Your task to perform on an android device: toggle translation in the chrome app Image 0: 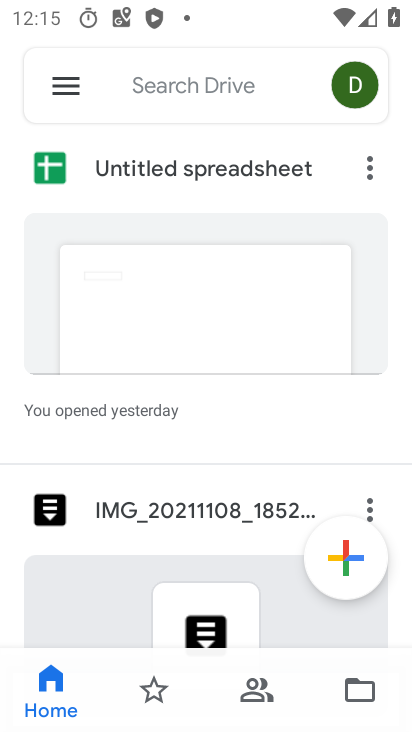
Step 0: press home button
Your task to perform on an android device: toggle translation in the chrome app Image 1: 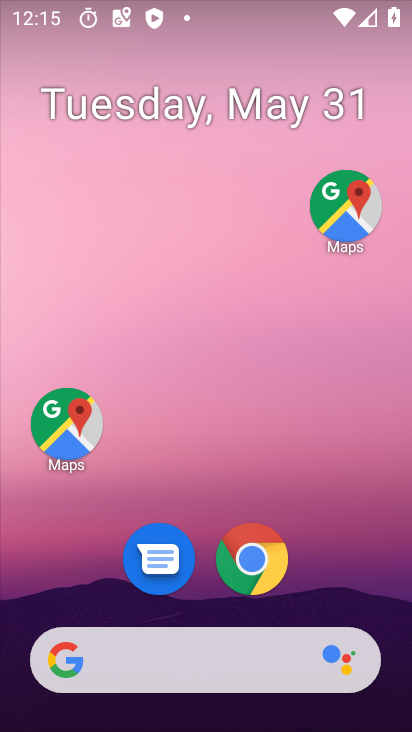
Step 1: click (251, 559)
Your task to perform on an android device: toggle translation in the chrome app Image 2: 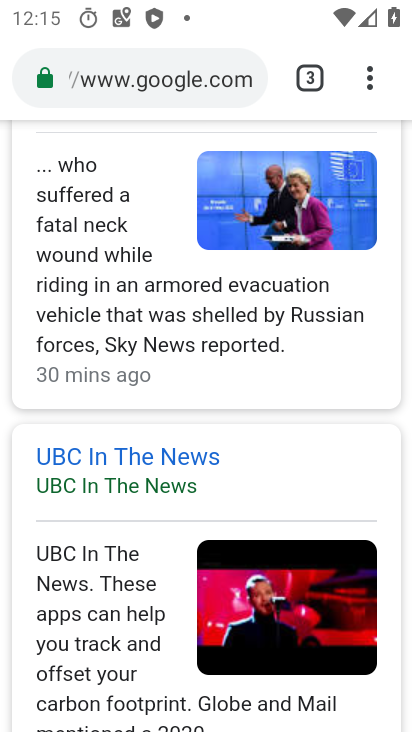
Step 2: drag from (376, 68) to (106, 627)
Your task to perform on an android device: toggle translation in the chrome app Image 3: 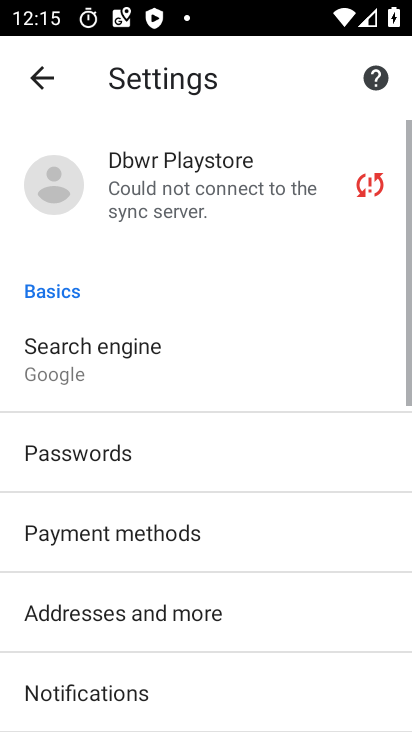
Step 3: drag from (106, 610) to (229, 32)
Your task to perform on an android device: toggle translation in the chrome app Image 4: 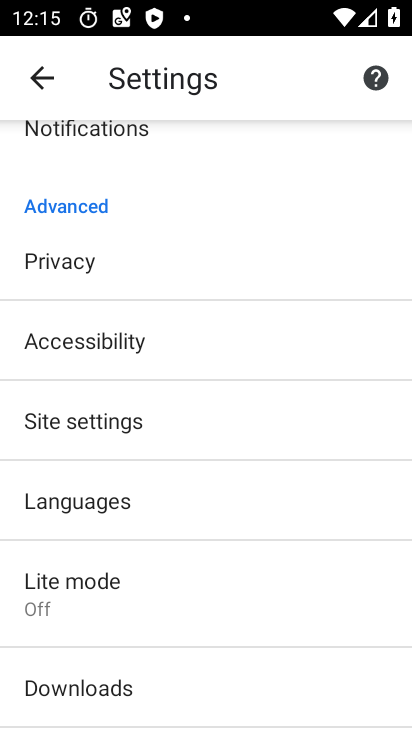
Step 4: click (101, 517)
Your task to perform on an android device: toggle translation in the chrome app Image 5: 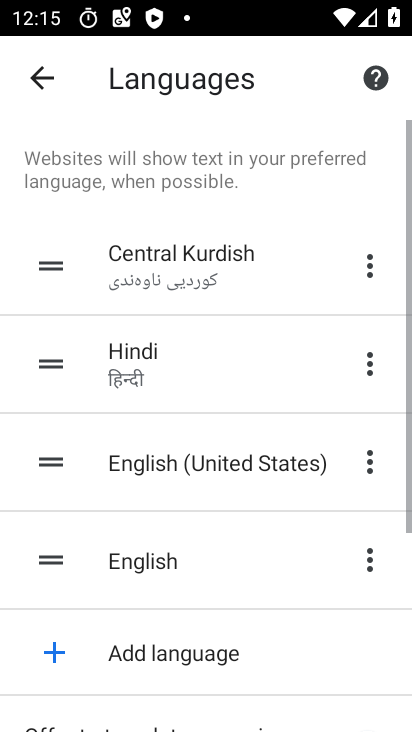
Step 5: drag from (211, 659) to (298, 93)
Your task to perform on an android device: toggle translation in the chrome app Image 6: 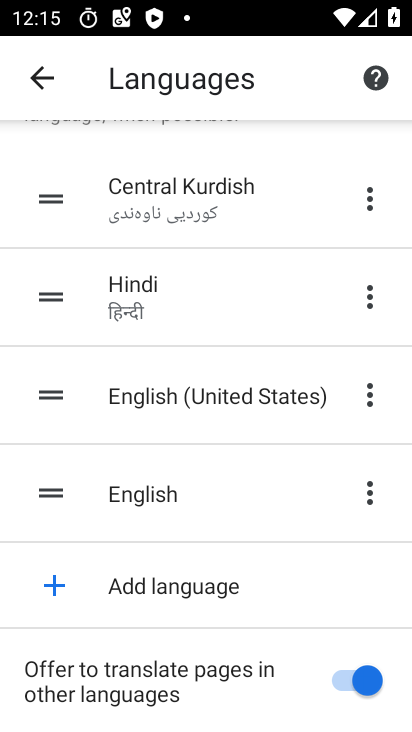
Step 6: click (344, 680)
Your task to perform on an android device: toggle translation in the chrome app Image 7: 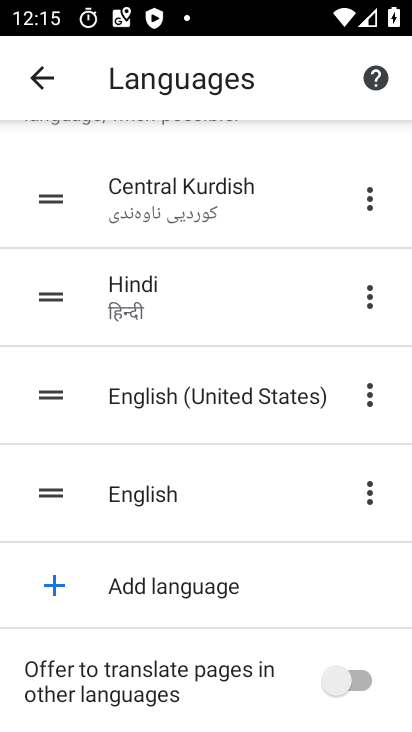
Step 7: task complete